Your task to perform on an android device: open app "Google Translate" (install if not already installed) Image 0: 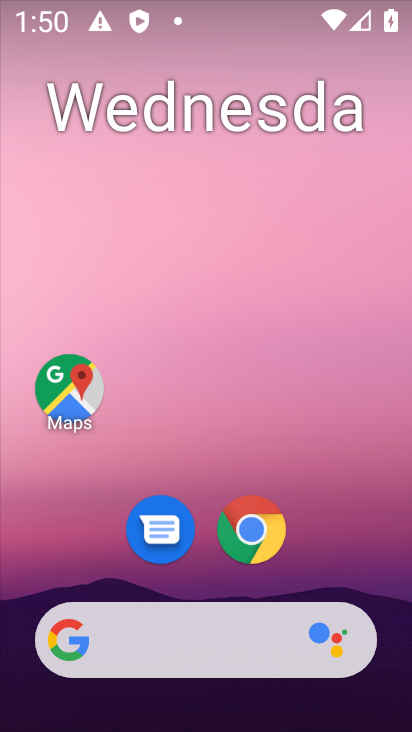
Step 0: drag from (195, 615) to (390, 8)
Your task to perform on an android device: open app "Google Translate" (install if not already installed) Image 1: 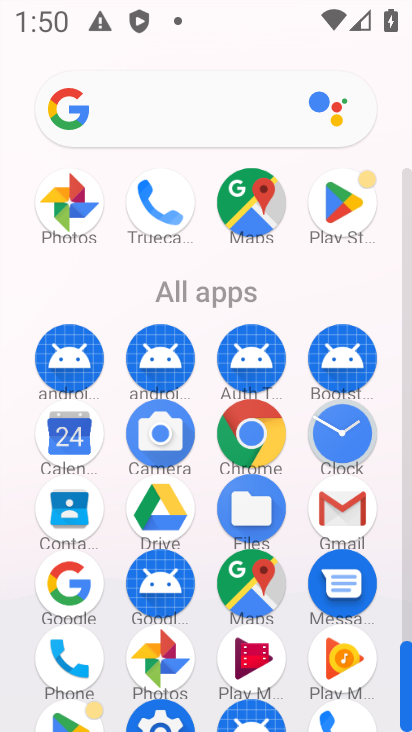
Step 1: click (349, 199)
Your task to perform on an android device: open app "Google Translate" (install if not already installed) Image 2: 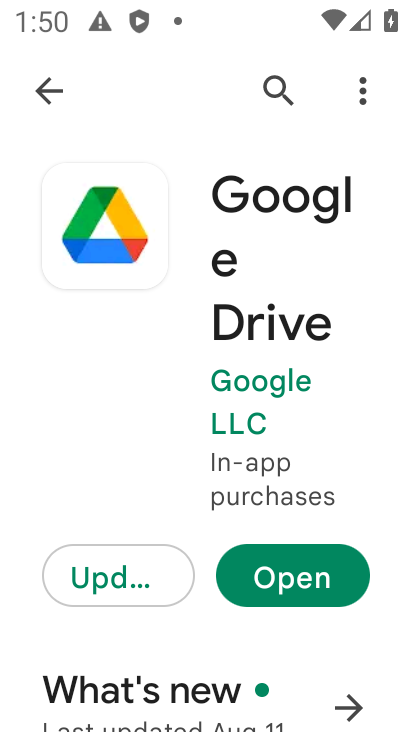
Step 2: click (279, 78)
Your task to perform on an android device: open app "Google Translate" (install if not already installed) Image 3: 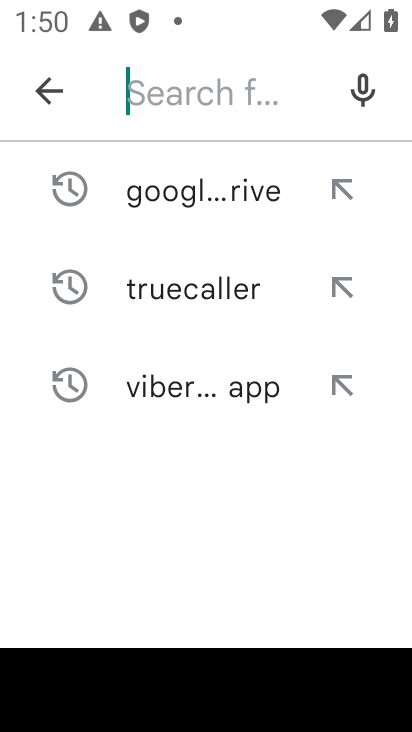
Step 3: click (274, 90)
Your task to perform on an android device: open app "Google Translate" (install if not already installed) Image 4: 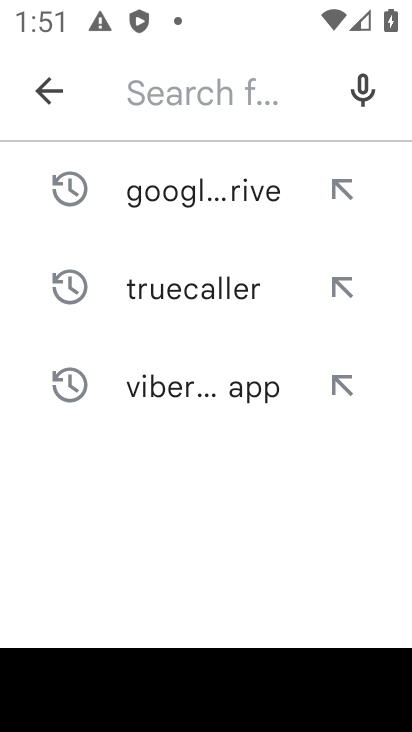
Step 4: type "Google Translate"
Your task to perform on an android device: open app "Google Translate" (install if not already installed) Image 5: 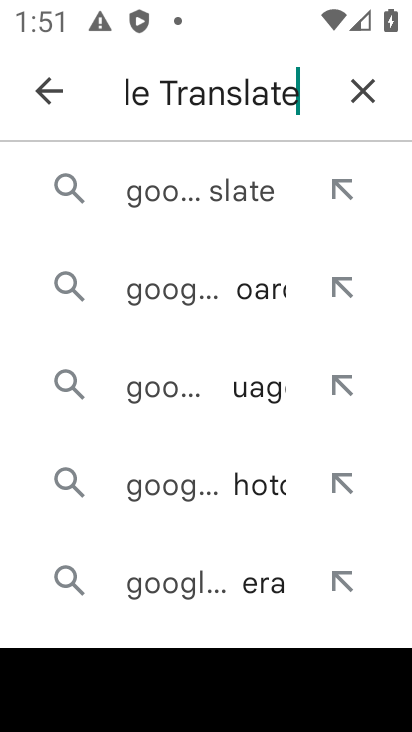
Step 5: click (187, 192)
Your task to perform on an android device: open app "Google Translate" (install if not already installed) Image 6: 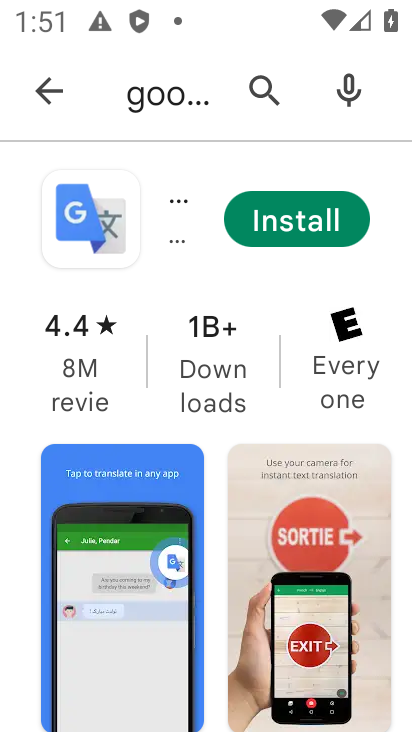
Step 6: click (321, 230)
Your task to perform on an android device: open app "Google Translate" (install if not already installed) Image 7: 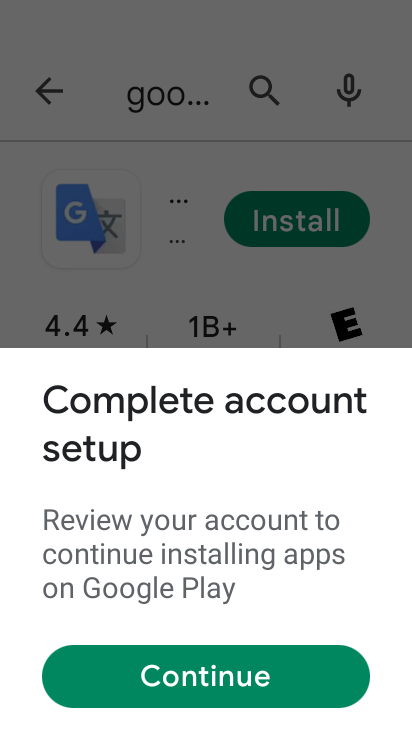
Step 7: click (251, 664)
Your task to perform on an android device: open app "Google Translate" (install if not already installed) Image 8: 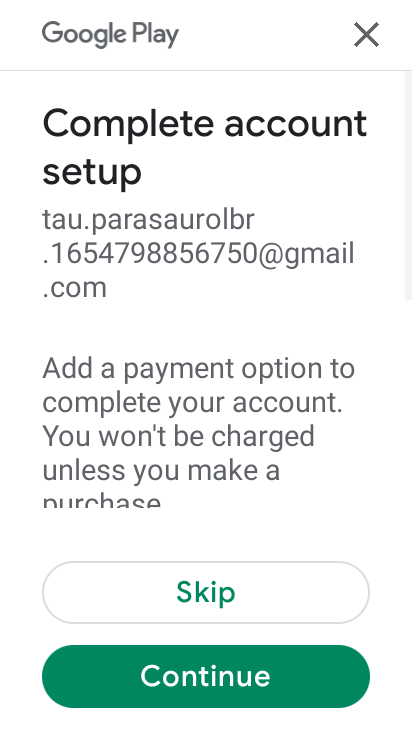
Step 8: click (163, 608)
Your task to perform on an android device: open app "Google Translate" (install if not already installed) Image 9: 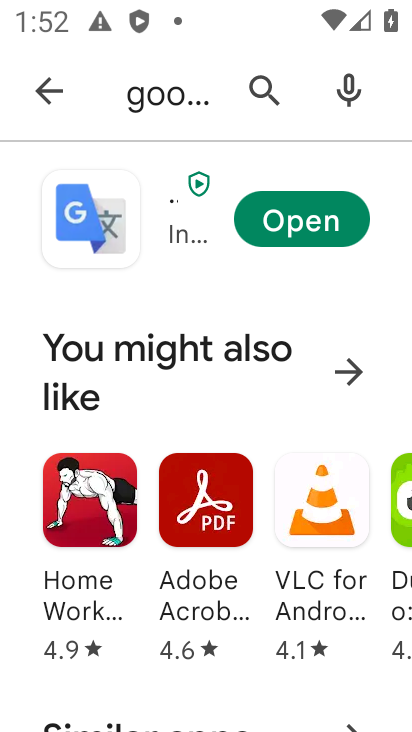
Step 9: click (300, 232)
Your task to perform on an android device: open app "Google Translate" (install if not already installed) Image 10: 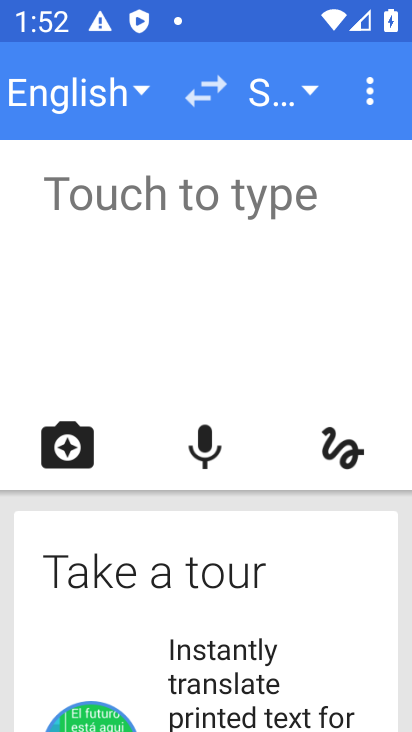
Step 10: task complete